Your task to perform on an android device: Go to Android settings Image 0: 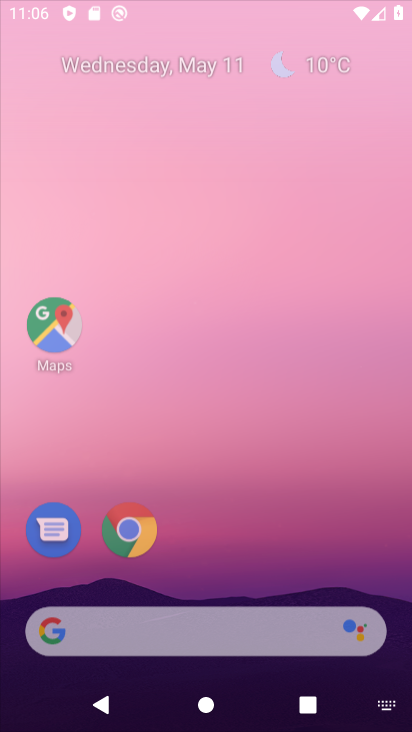
Step 0: click (139, 549)
Your task to perform on an android device: Go to Android settings Image 1: 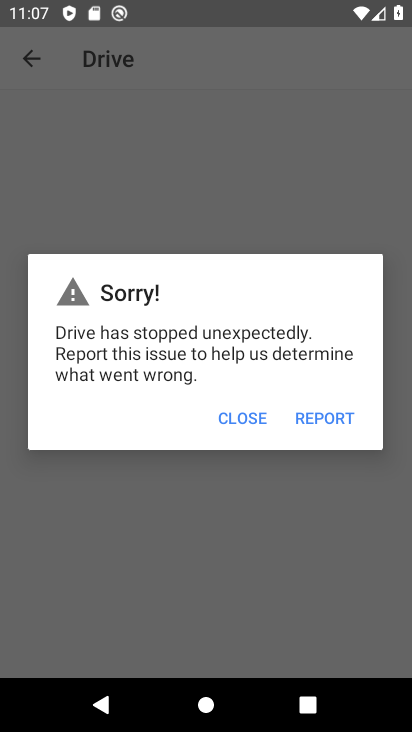
Step 1: press home button
Your task to perform on an android device: Go to Android settings Image 2: 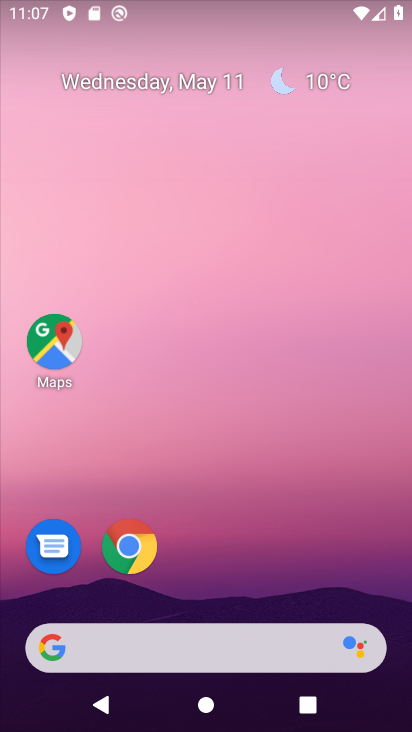
Step 2: drag from (187, 621) to (188, 60)
Your task to perform on an android device: Go to Android settings Image 3: 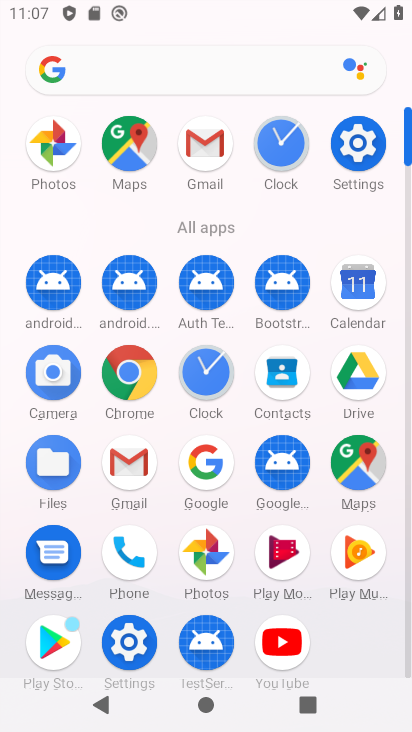
Step 3: click (140, 656)
Your task to perform on an android device: Go to Android settings Image 4: 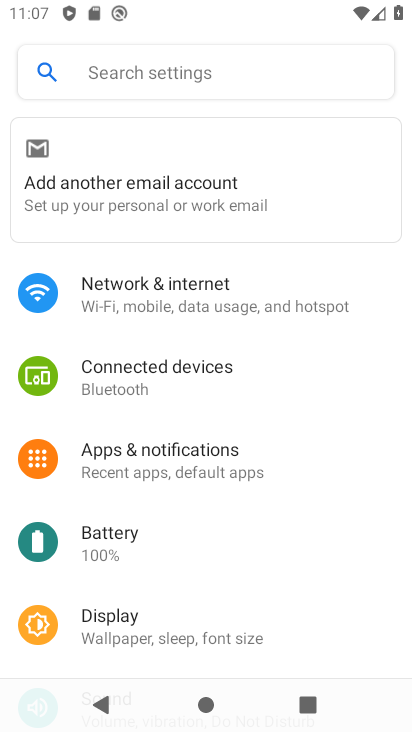
Step 4: drag from (168, 611) to (88, 8)
Your task to perform on an android device: Go to Android settings Image 5: 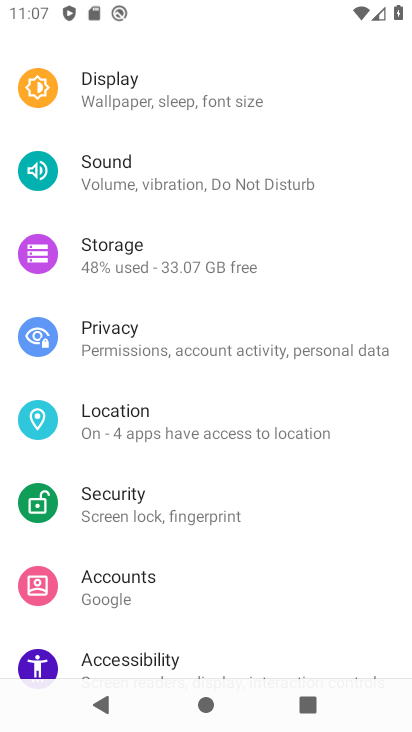
Step 5: drag from (153, 636) to (143, 143)
Your task to perform on an android device: Go to Android settings Image 6: 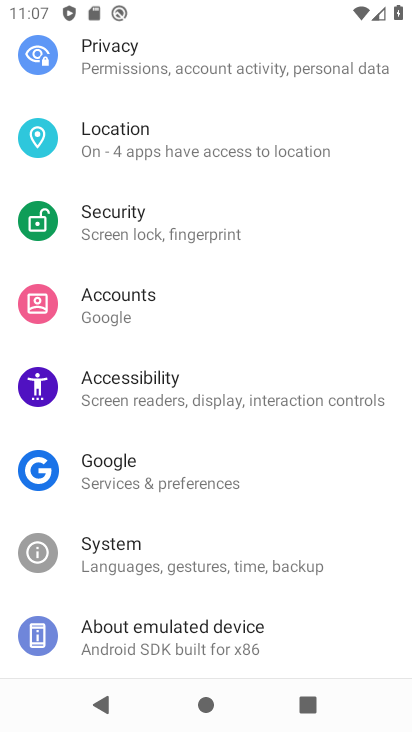
Step 6: click (168, 629)
Your task to perform on an android device: Go to Android settings Image 7: 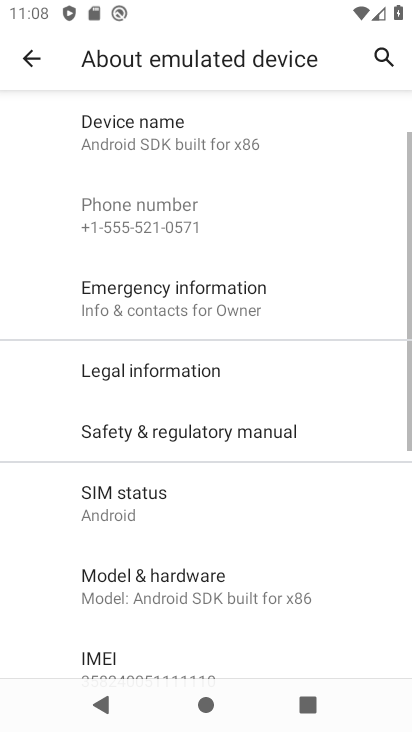
Step 7: task complete